Your task to perform on an android device: check data usage Image 0: 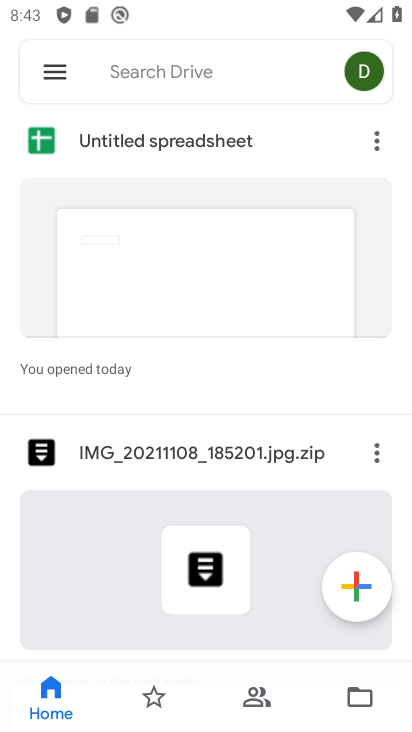
Step 0: press home button
Your task to perform on an android device: check data usage Image 1: 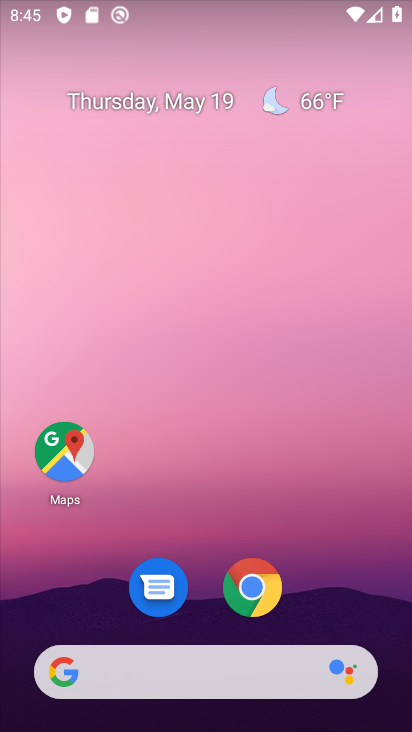
Step 1: drag from (209, 646) to (189, 146)
Your task to perform on an android device: check data usage Image 2: 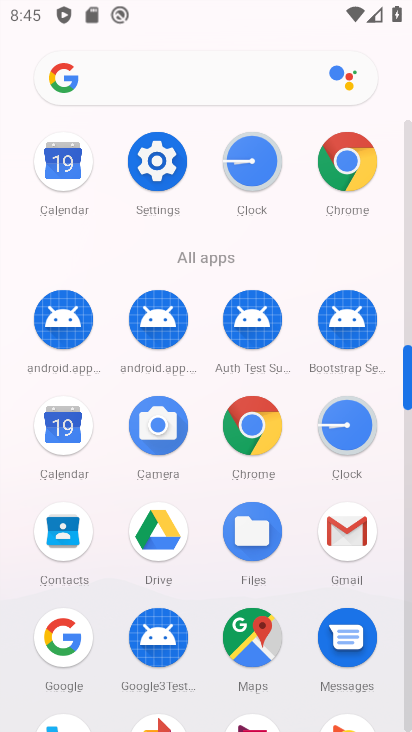
Step 2: click (138, 177)
Your task to perform on an android device: check data usage Image 3: 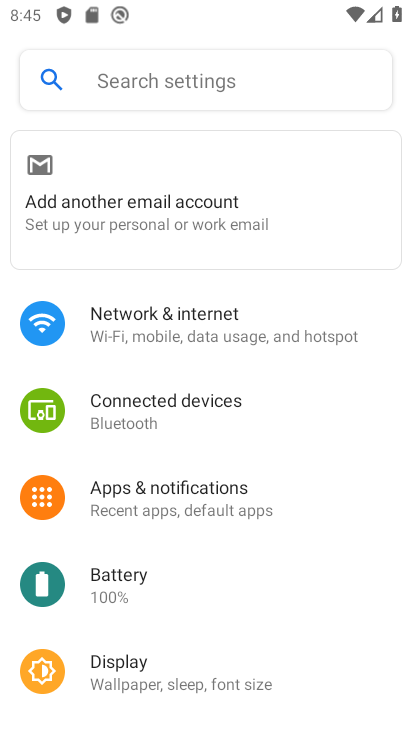
Step 3: click (131, 76)
Your task to perform on an android device: check data usage Image 4: 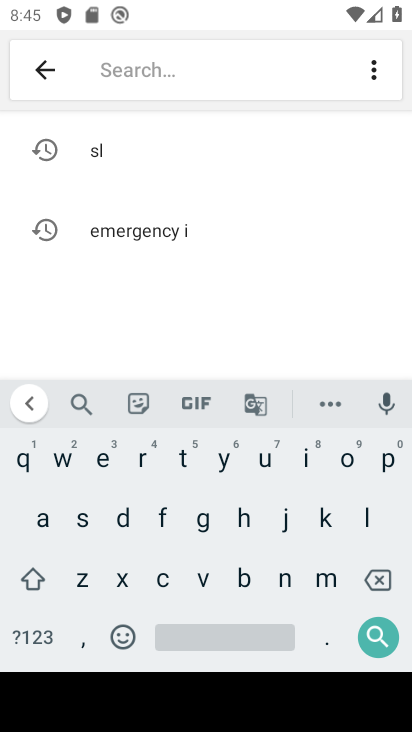
Step 4: click (119, 522)
Your task to perform on an android device: check data usage Image 5: 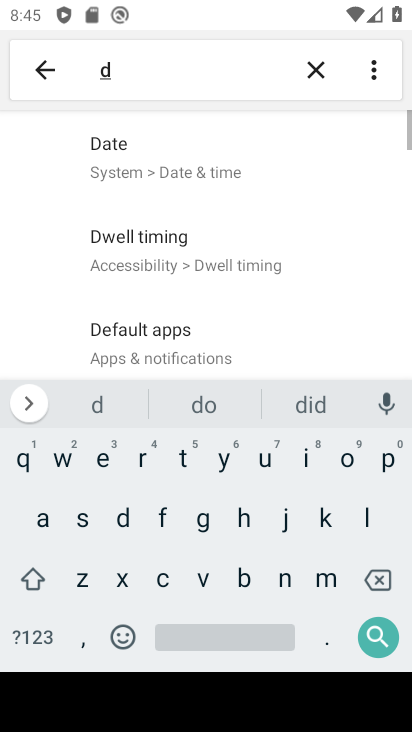
Step 5: click (51, 520)
Your task to perform on an android device: check data usage Image 6: 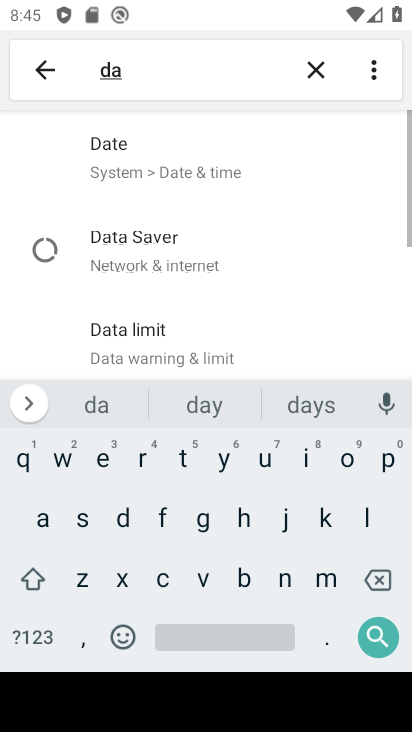
Step 6: click (183, 467)
Your task to perform on an android device: check data usage Image 7: 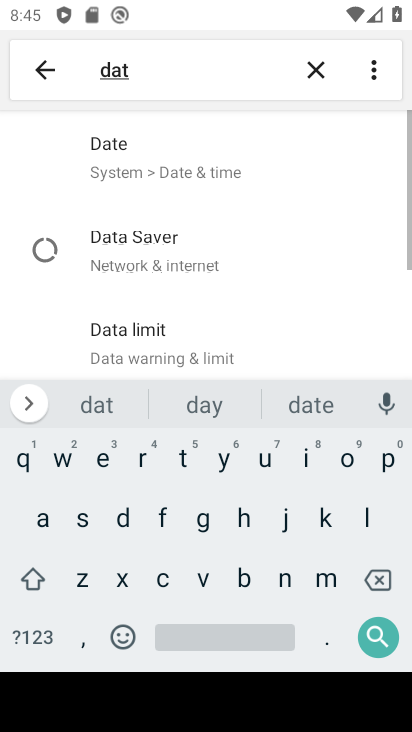
Step 7: click (50, 522)
Your task to perform on an android device: check data usage Image 8: 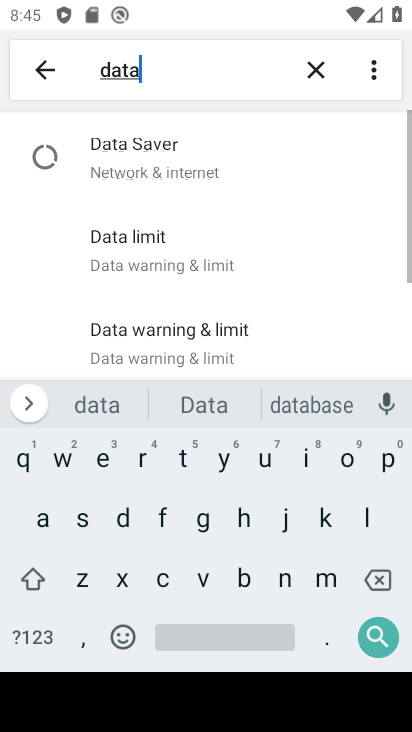
Step 8: click (199, 631)
Your task to perform on an android device: check data usage Image 9: 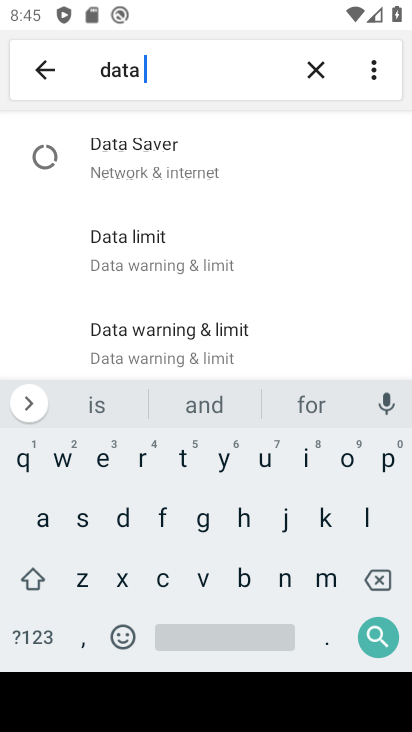
Step 9: click (266, 469)
Your task to perform on an android device: check data usage Image 10: 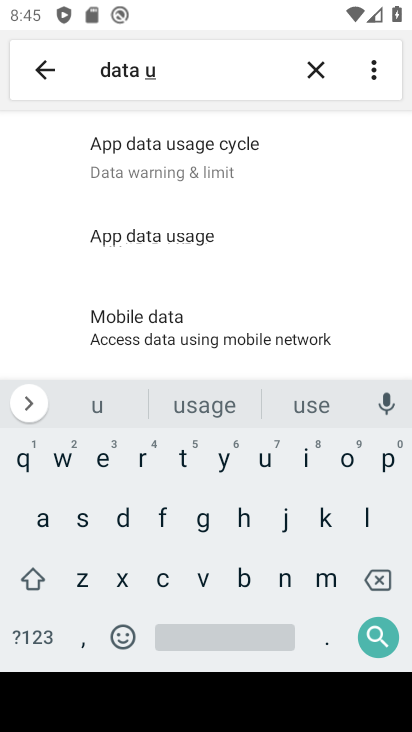
Step 10: click (171, 262)
Your task to perform on an android device: check data usage Image 11: 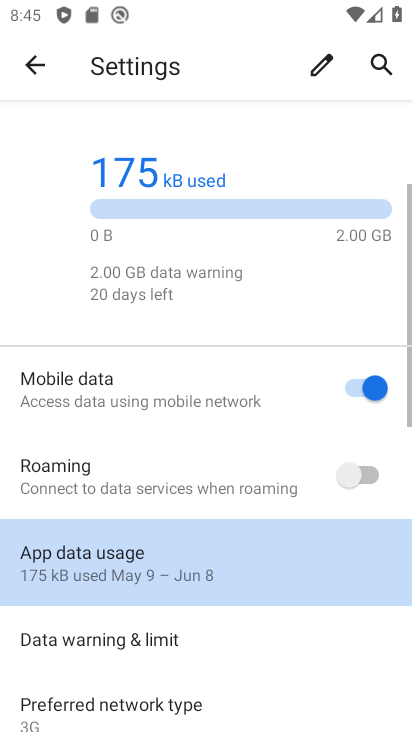
Step 11: click (221, 550)
Your task to perform on an android device: check data usage Image 12: 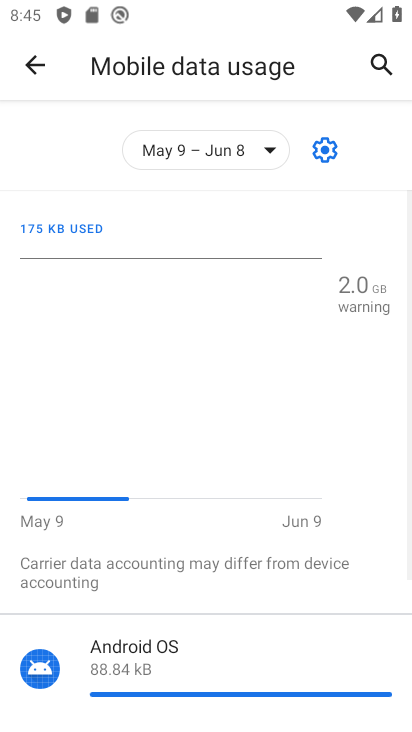
Step 12: task complete